Your task to perform on an android device: Open Google Image 0: 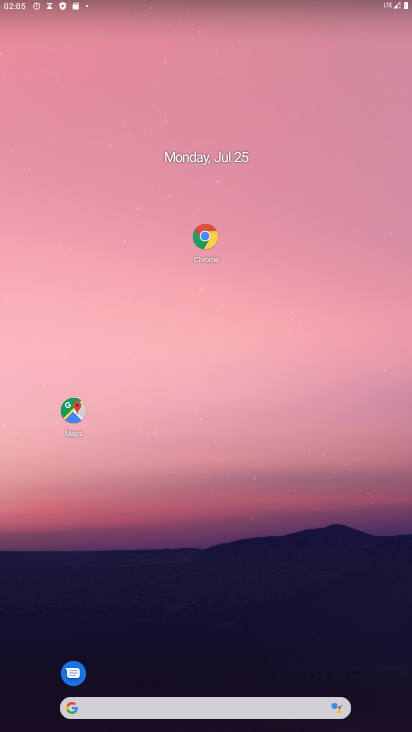
Step 0: drag from (199, 678) to (170, 92)
Your task to perform on an android device: Open Google Image 1: 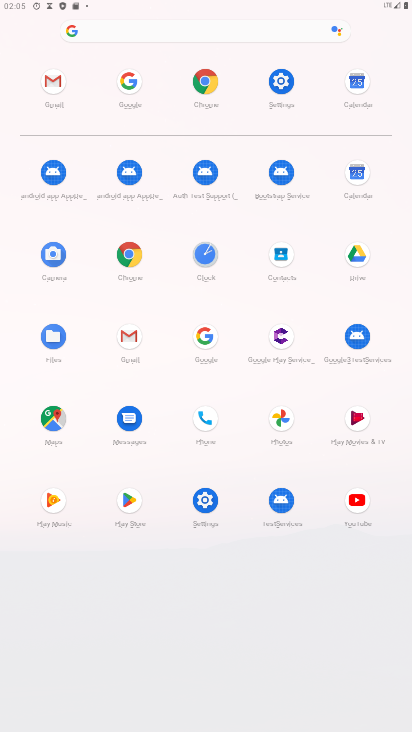
Step 1: click (135, 250)
Your task to perform on an android device: Open Google Image 2: 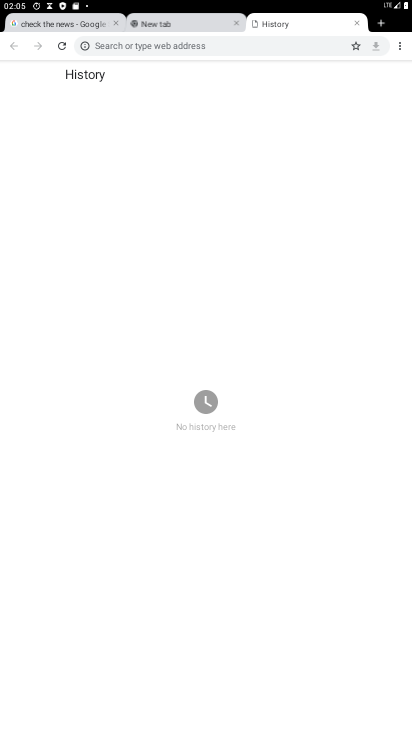
Step 2: task complete